Your task to perform on an android device: turn pop-ups on in chrome Image 0: 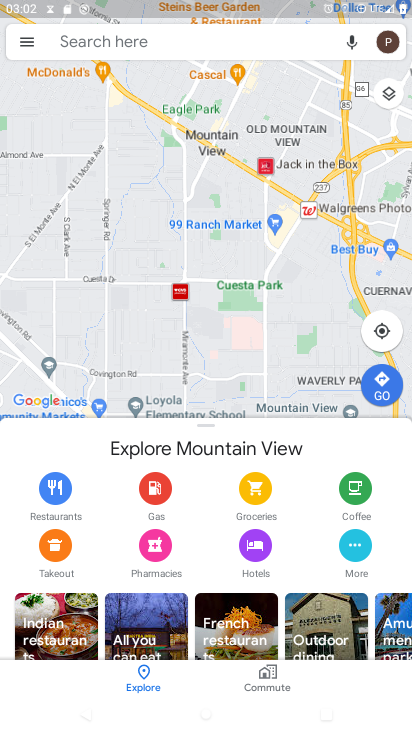
Step 0: press home button
Your task to perform on an android device: turn pop-ups on in chrome Image 1: 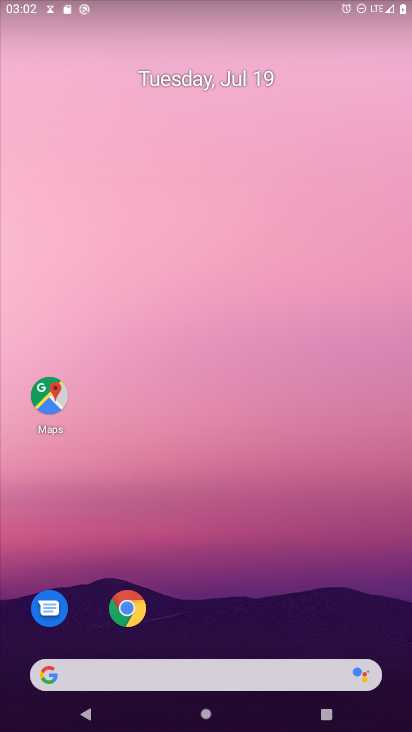
Step 1: drag from (235, 696) to (283, 54)
Your task to perform on an android device: turn pop-ups on in chrome Image 2: 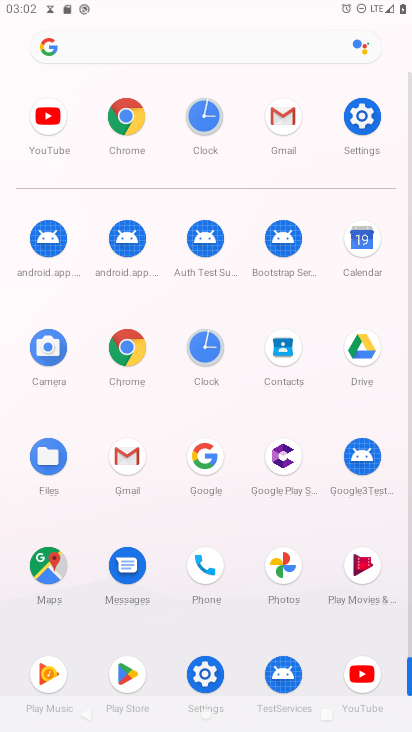
Step 2: click (117, 353)
Your task to perform on an android device: turn pop-ups on in chrome Image 3: 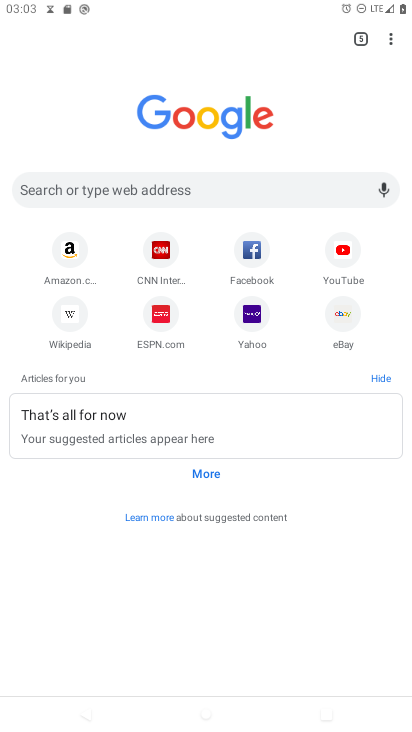
Step 3: click (395, 39)
Your task to perform on an android device: turn pop-ups on in chrome Image 4: 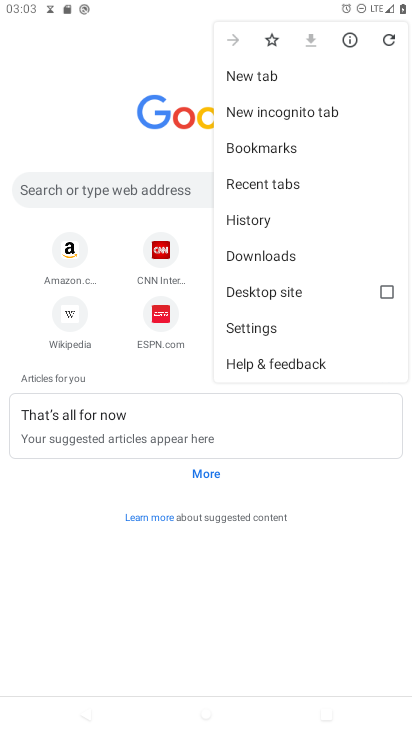
Step 4: click (272, 317)
Your task to perform on an android device: turn pop-ups on in chrome Image 5: 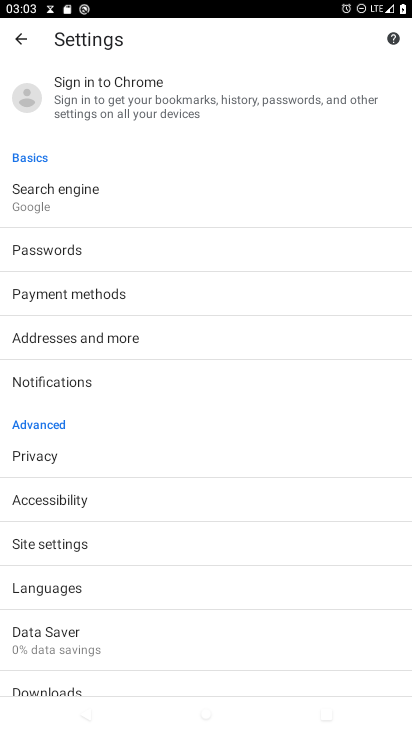
Step 5: click (88, 551)
Your task to perform on an android device: turn pop-ups on in chrome Image 6: 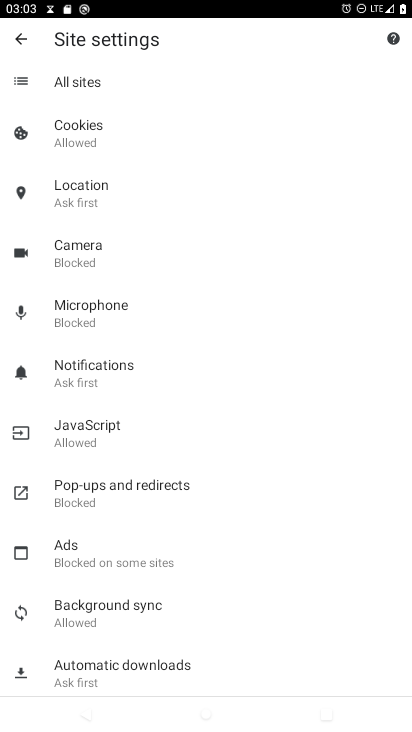
Step 6: click (110, 478)
Your task to perform on an android device: turn pop-ups on in chrome Image 7: 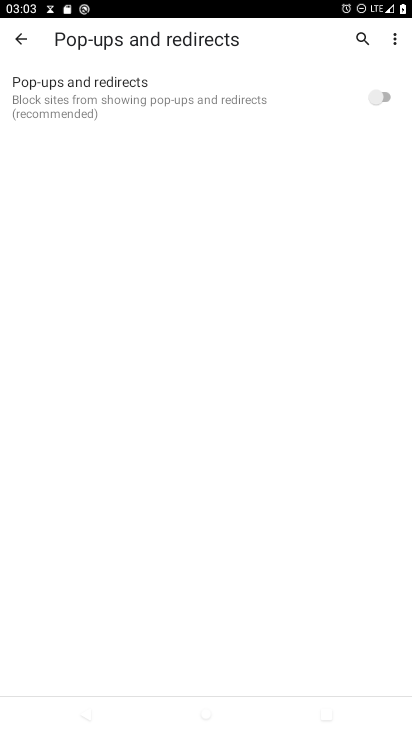
Step 7: click (378, 96)
Your task to perform on an android device: turn pop-ups on in chrome Image 8: 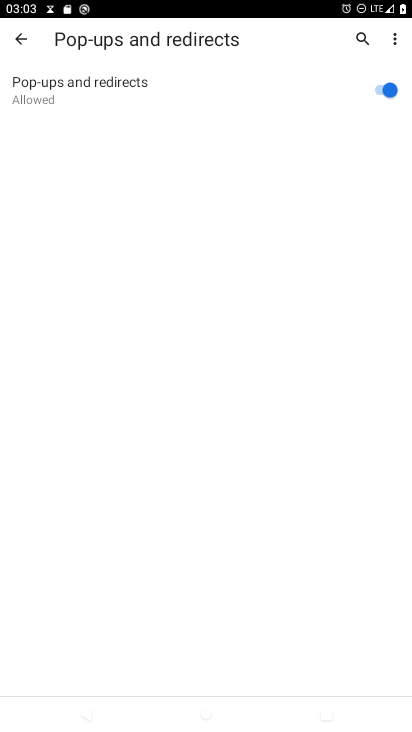
Step 8: task complete